Your task to perform on an android device: toggle notifications settings in the gmail app Image 0: 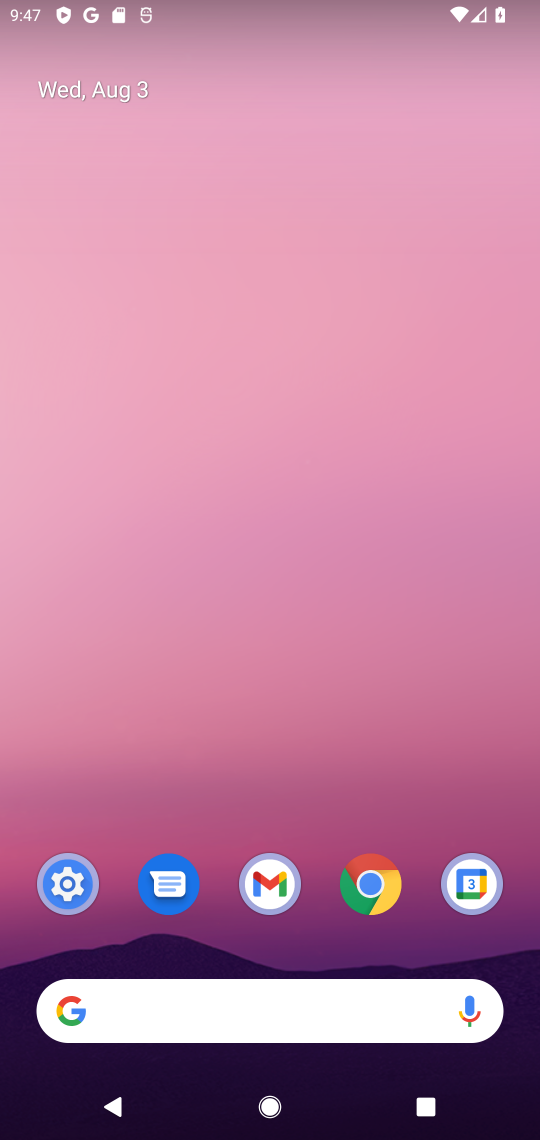
Step 0: press home button
Your task to perform on an android device: toggle notifications settings in the gmail app Image 1: 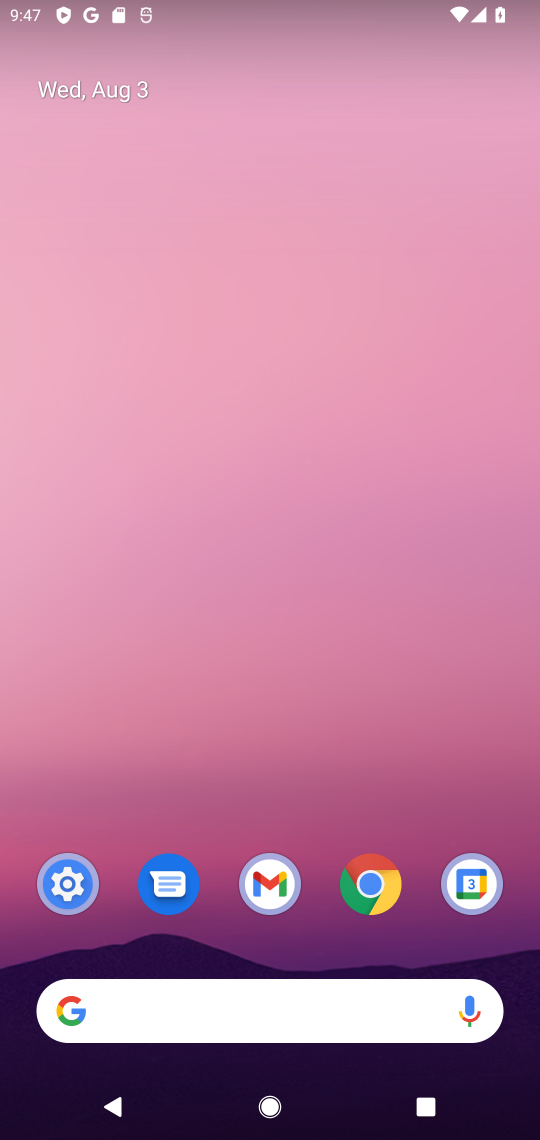
Step 1: click (260, 881)
Your task to perform on an android device: toggle notifications settings in the gmail app Image 2: 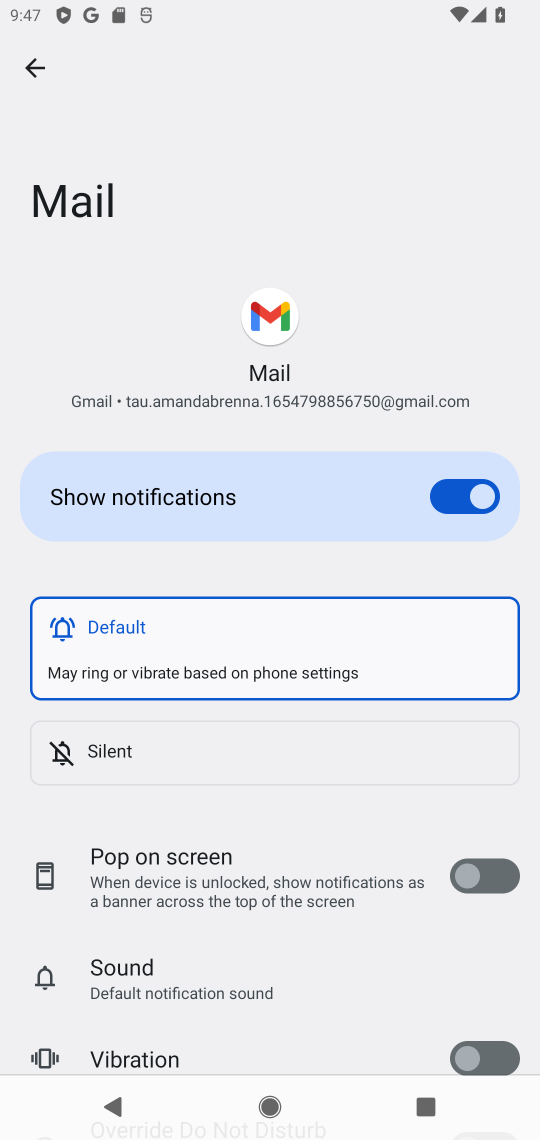
Step 2: click (480, 494)
Your task to perform on an android device: toggle notifications settings in the gmail app Image 3: 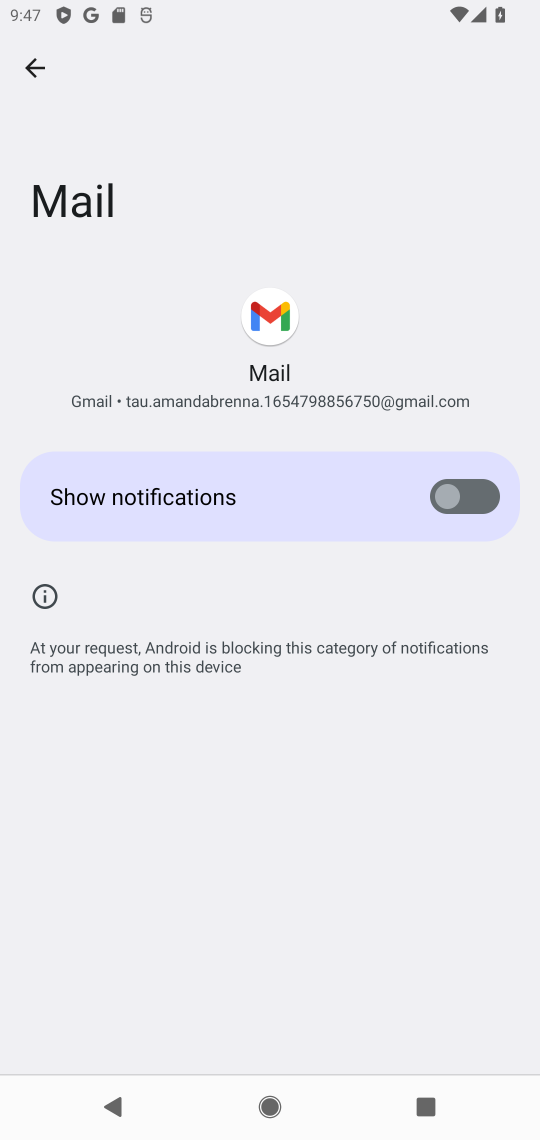
Step 3: task complete